Your task to perform on an android device: Show me popular videos on Youtube Image 0: 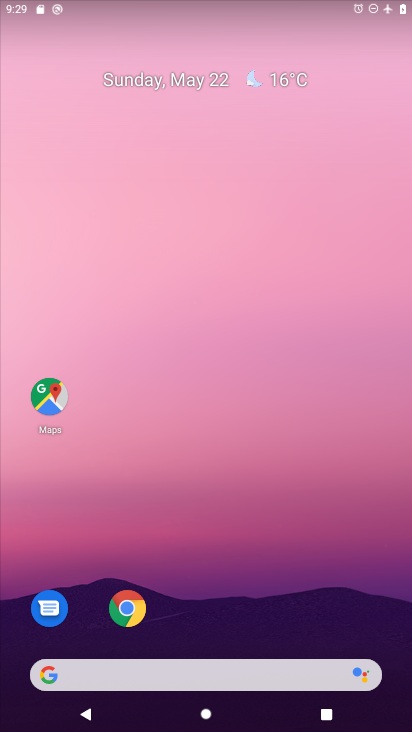
Step 0: drag from (225, 726) to (207, 180)
Your task to perform on an android device: Show me popular videos on Youtube Image 1: 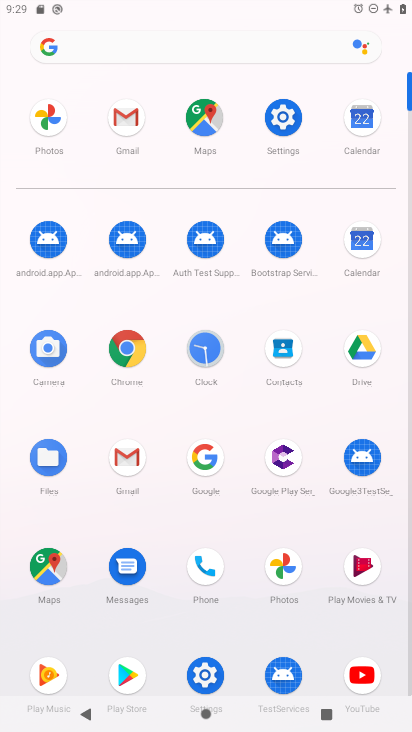
Step 1: click (362, 669)
Your task to perform on an android device: Show me popular videos on Youtube Image 2: 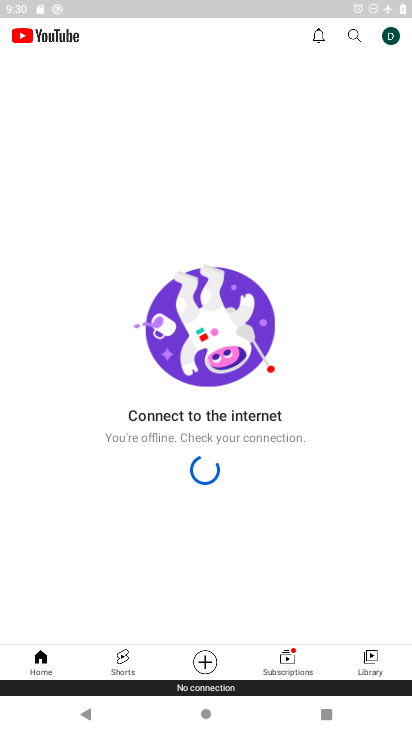
Step 2: task complete